Your task to perform on an android device: uninstall "Microsoft Authenticator" Image 0: 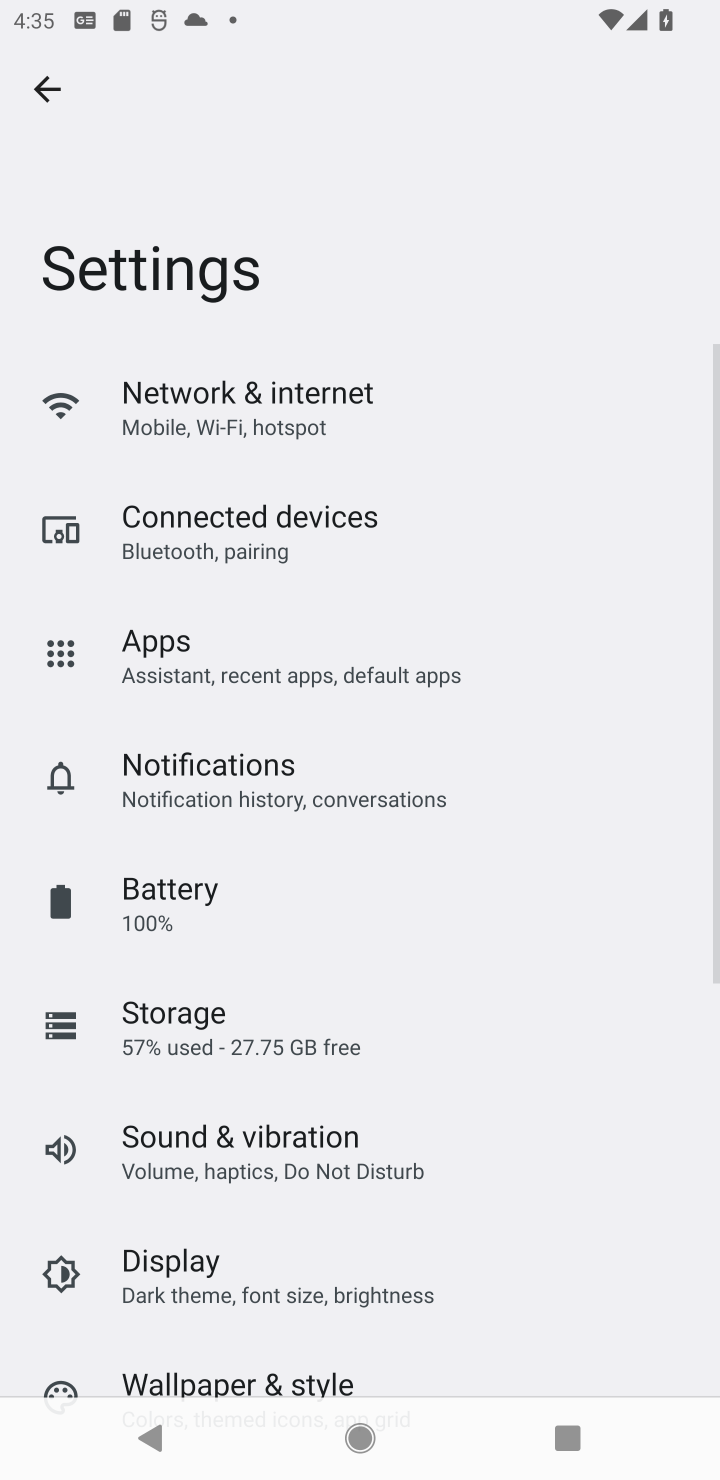
Step 0: press home button
Your task to perform on an android device: uninstall "Microsoft Authenticator" Image 1: 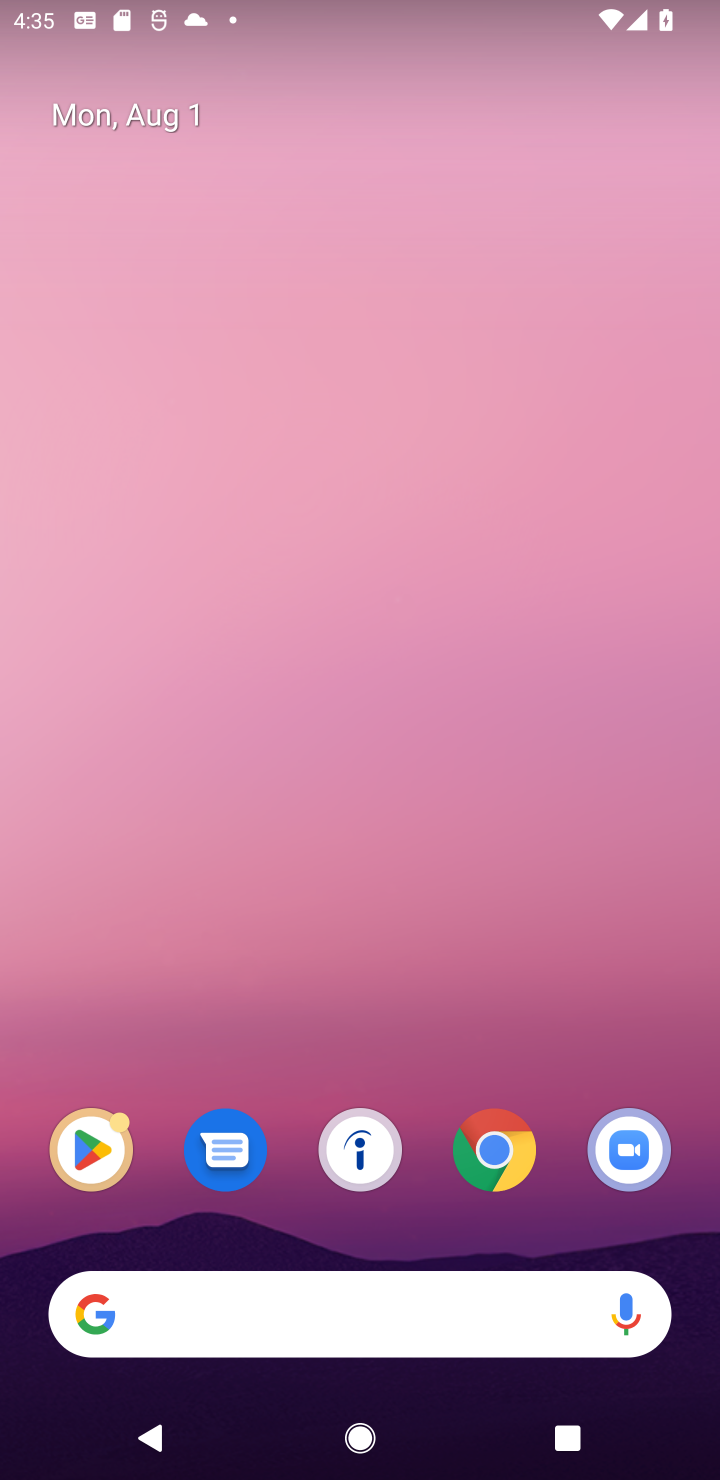
Step 1: click (90, 1172)
Your task to perform on an android device: uninstall "Microsoft Authenticator" Image 2: 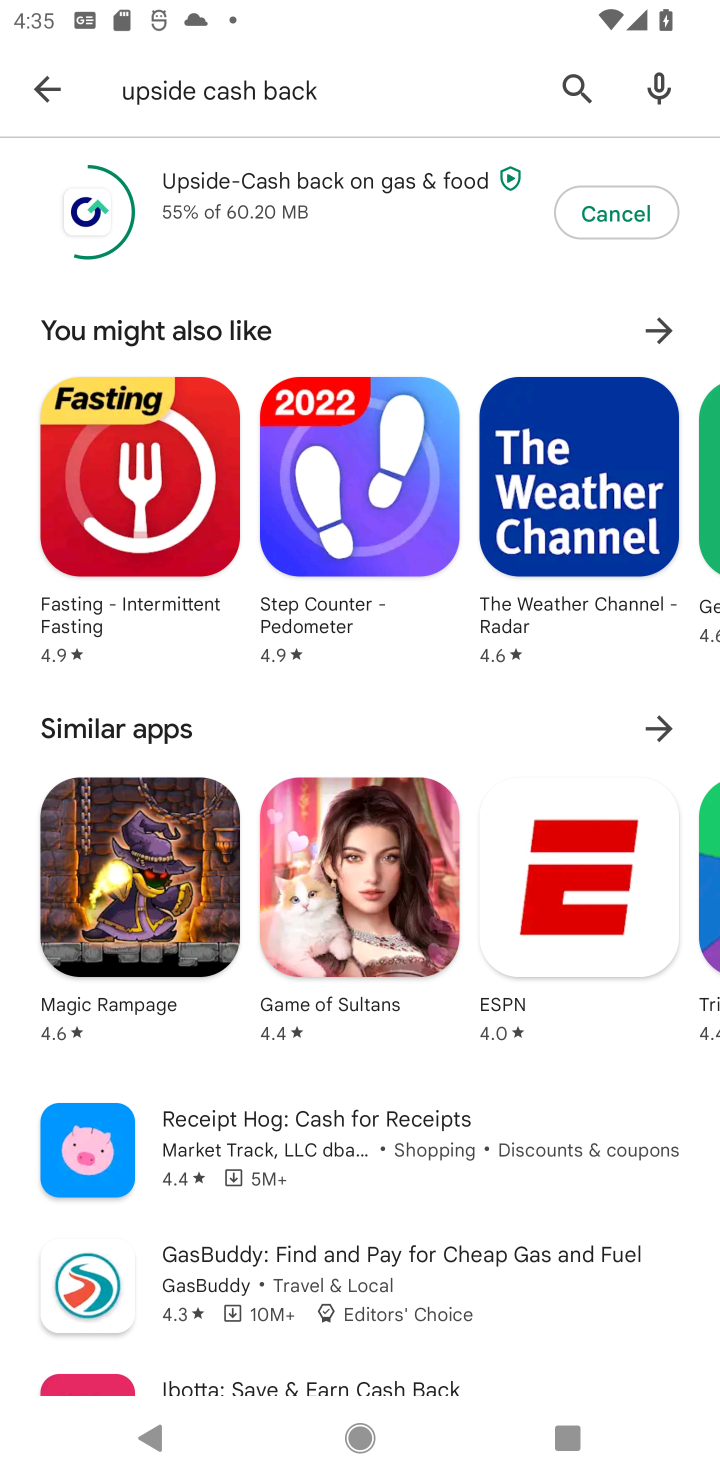
Step 2: click (571, 96)
Your task to perform on an android device: uninstall "Microsoft Authenticator" Image 3: 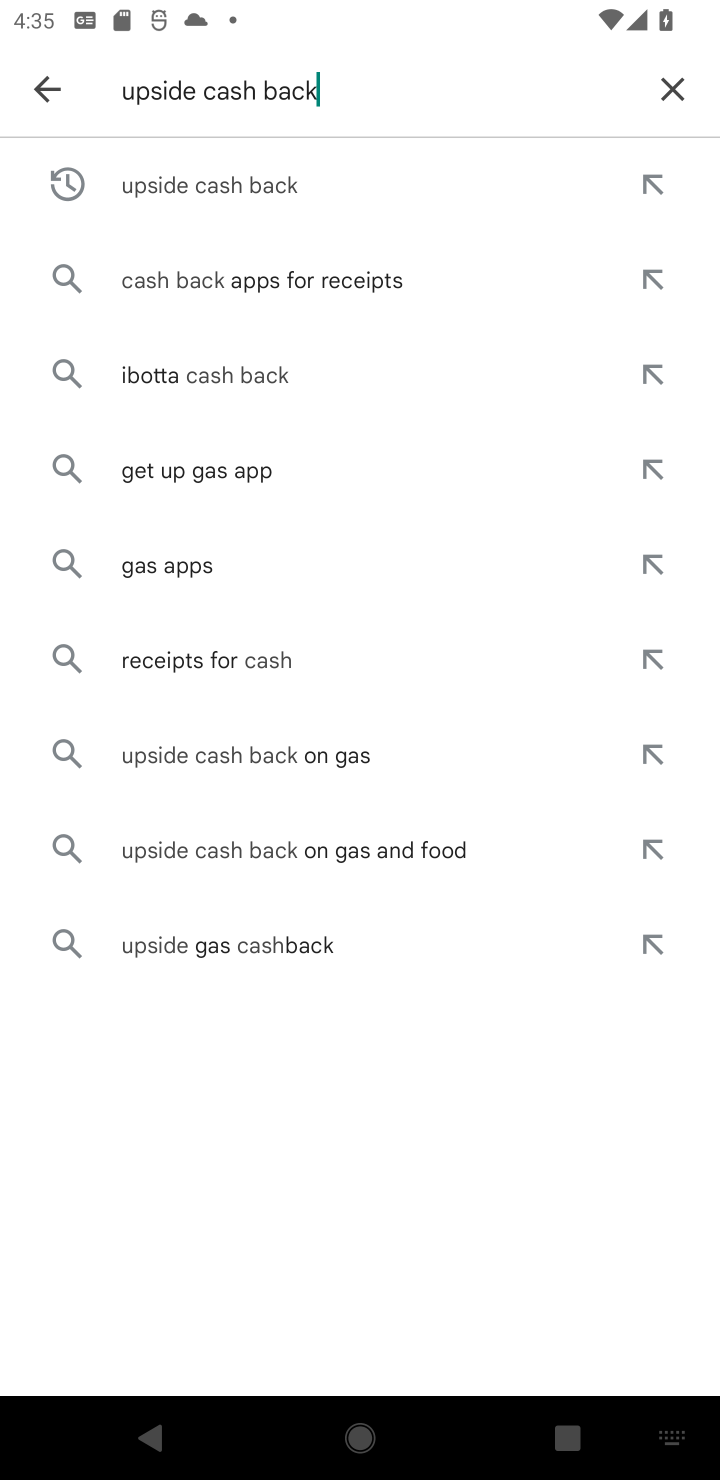
Step 3: click (673, 96)
Your task to perform on an android device: uninstall "Microsoft Authenticator" Image 4: 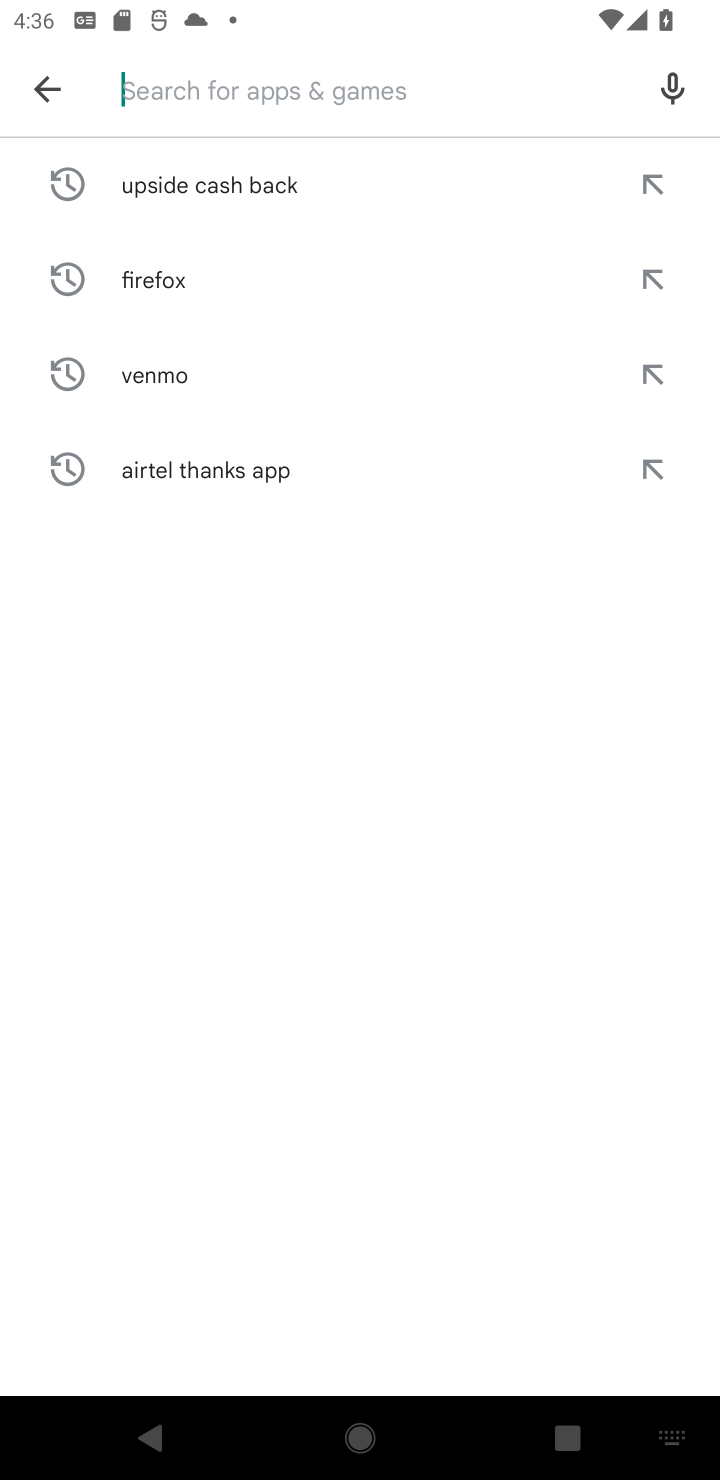
Step 4: type "microsoft authenticator"
Your task to perform on an android device: uninstall "Microsoft Authenticator" Image 5: 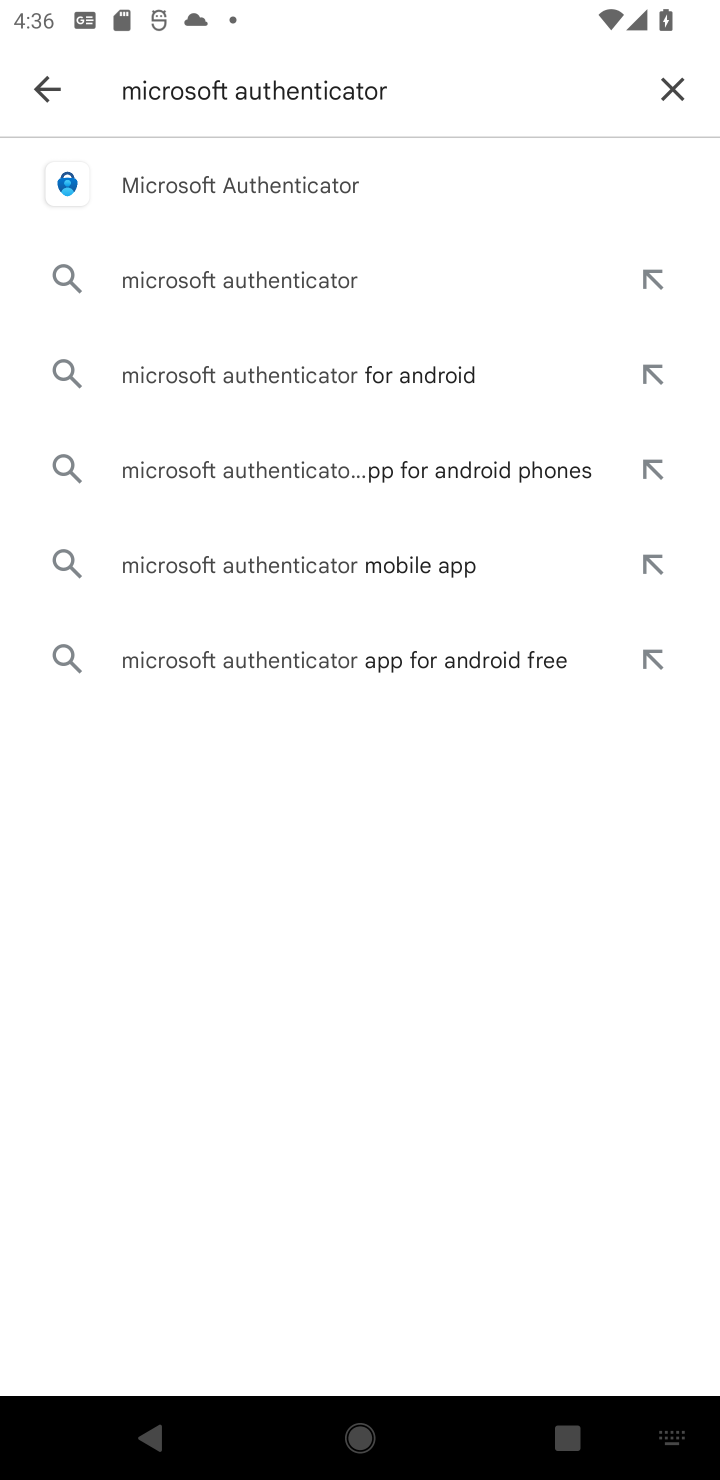
Step 5: click (371, 197)
Your task to perform on an android device: uninstall "Microsoft Authenticator" Image 6: 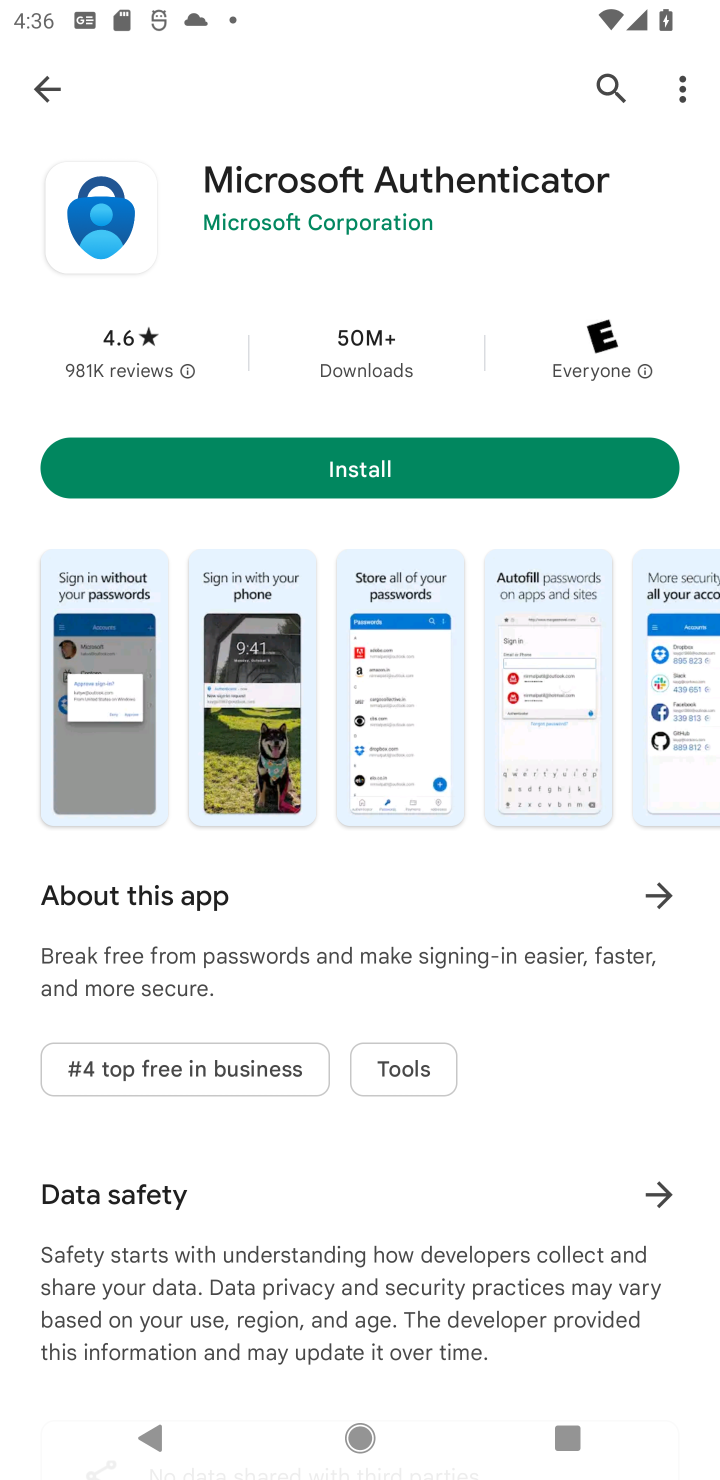
Step 6: click (505, 486)
Your task to perform on an android device: uninstall "Microsoft Authenticator" Image 7: 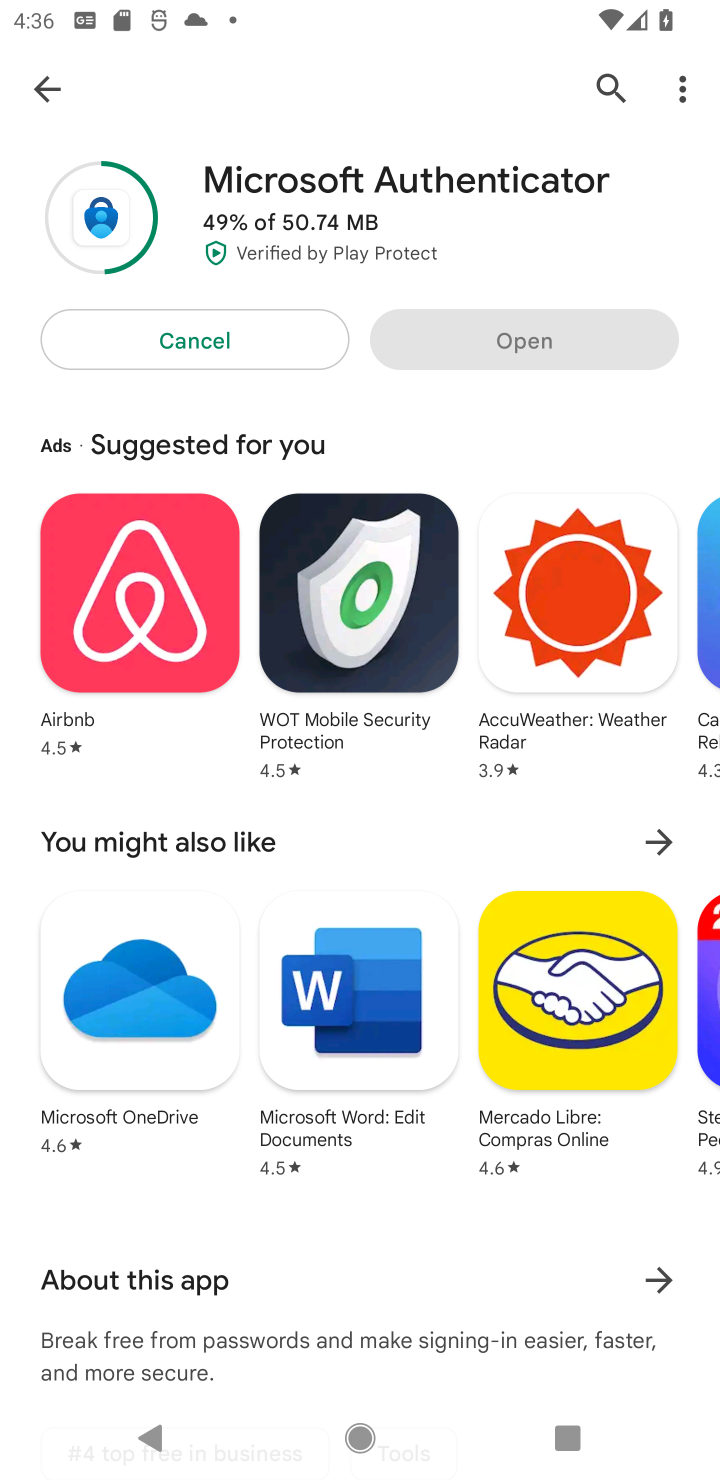
Step 7: task complete